Your task to perform on an android device: turn on sleep mode Image 0: 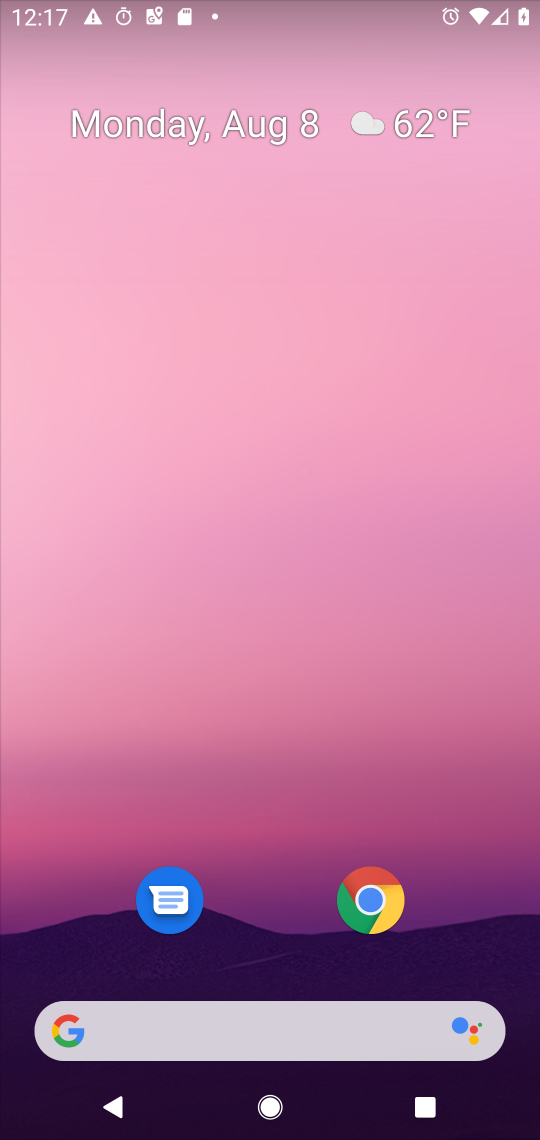
Step 0: press home button
Your task to perform on an android device: turn on sleep mode Image 1: 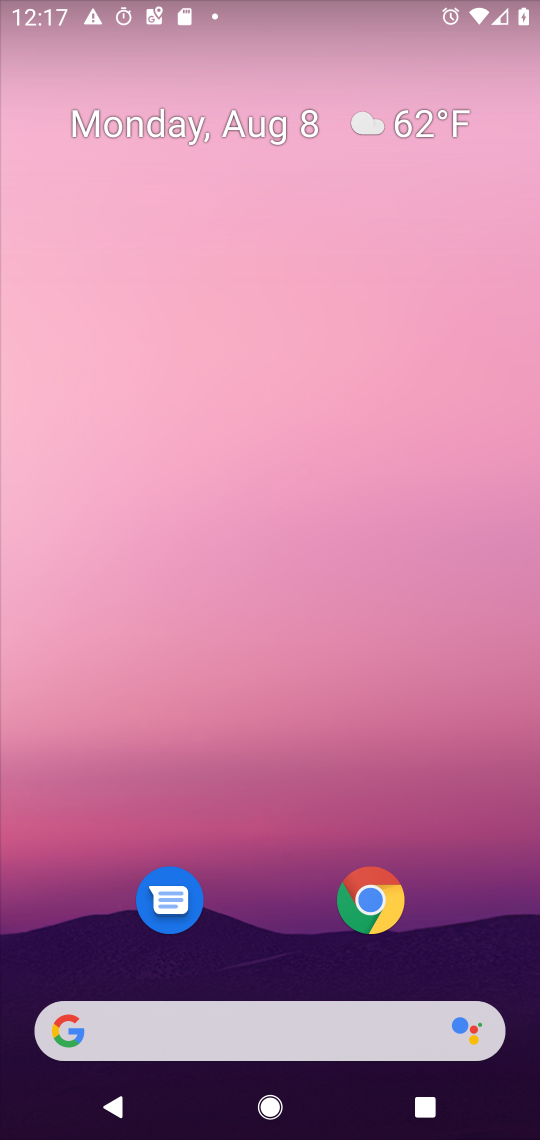
Step 1: drag from (289, 968) to (263, 41)
Your task to perform on an android device: turn on sleep mode Image 2: 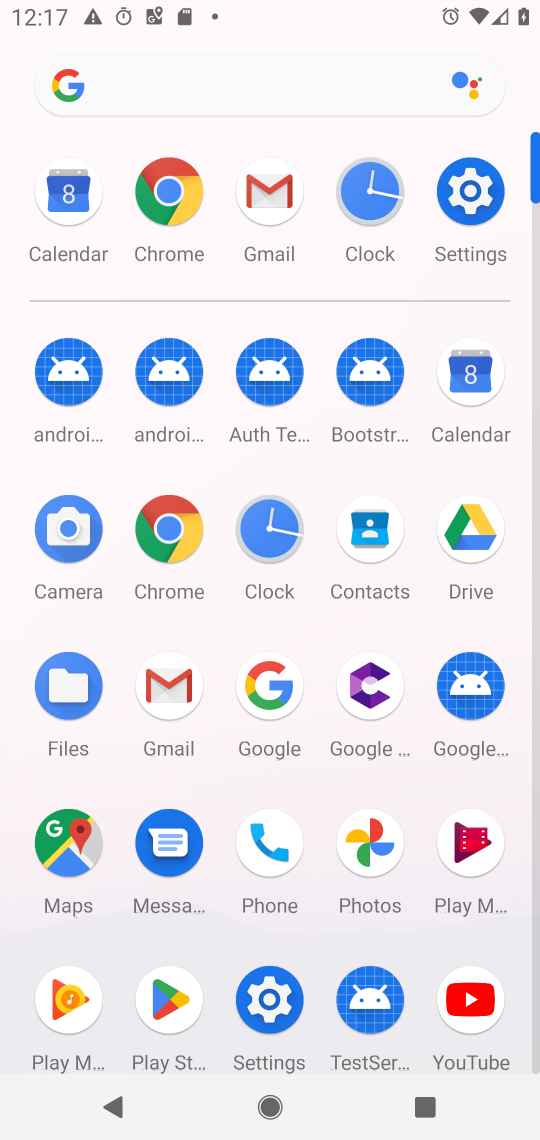
Step 2: click (455, 178)
Your task to perform on an android device: turn on sleep mode Image 3: 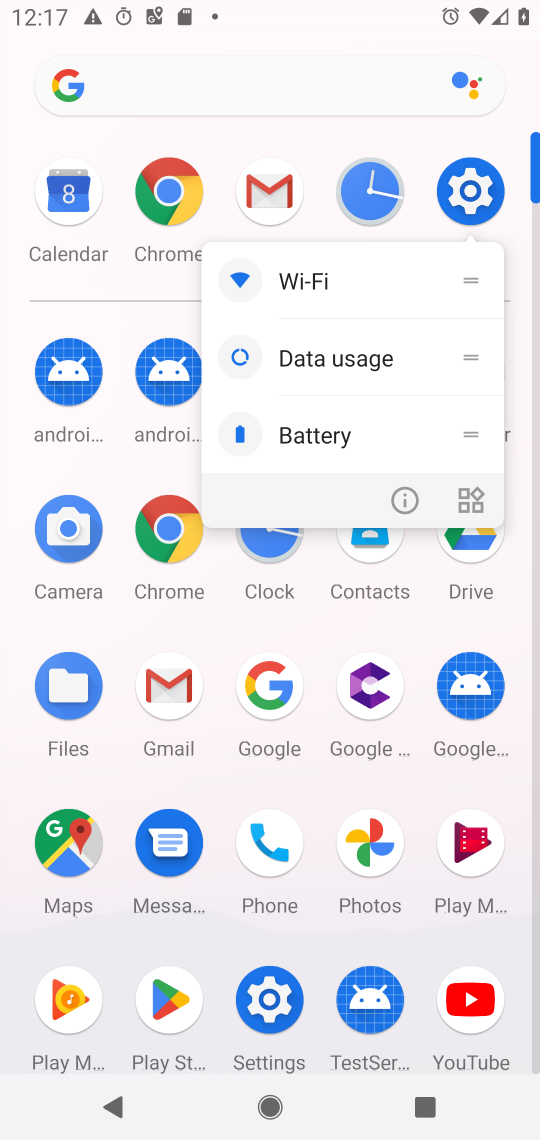
Step 3: click (478, 185)
Your task to perform on an android device: turn on sleep mode Image 4: 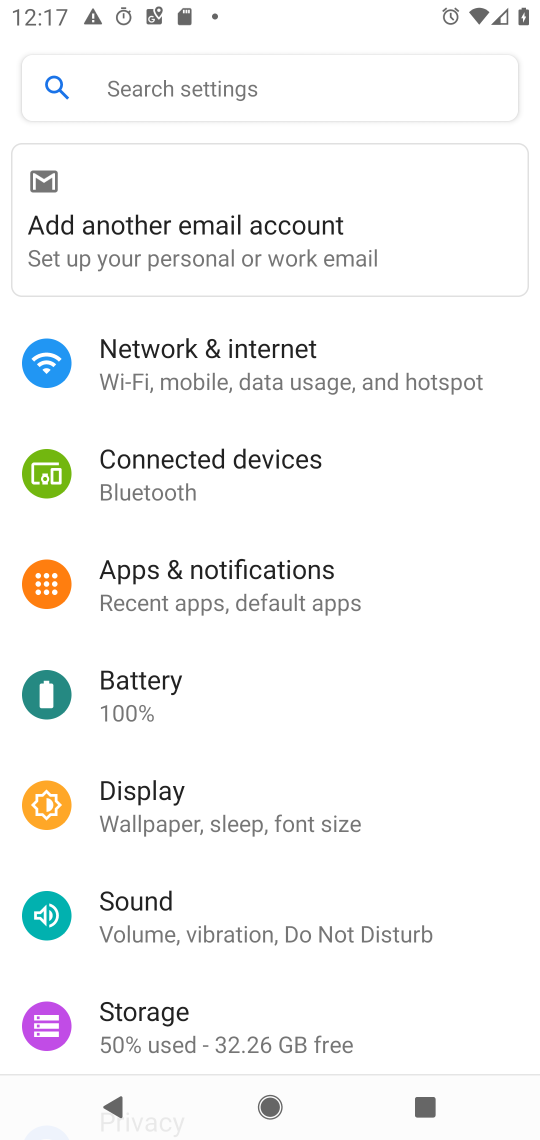
Step 4: click (194, 798)
Your task to perform on an android device: turn on sleep mode Image 5: 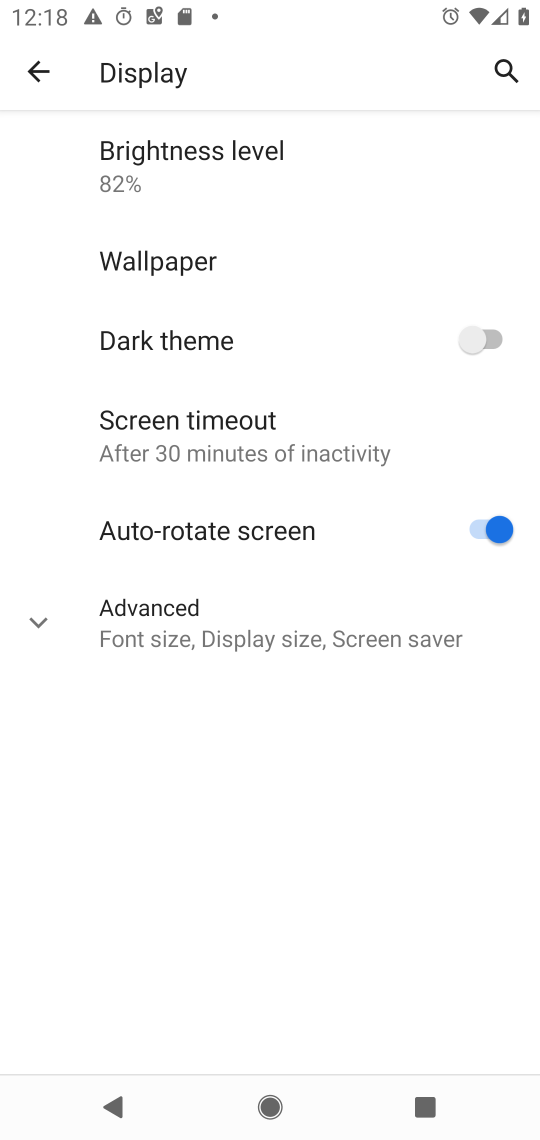
Step 5: click (35, 615)
Your task to perform on an android device: turn on sleep mode Image 6: 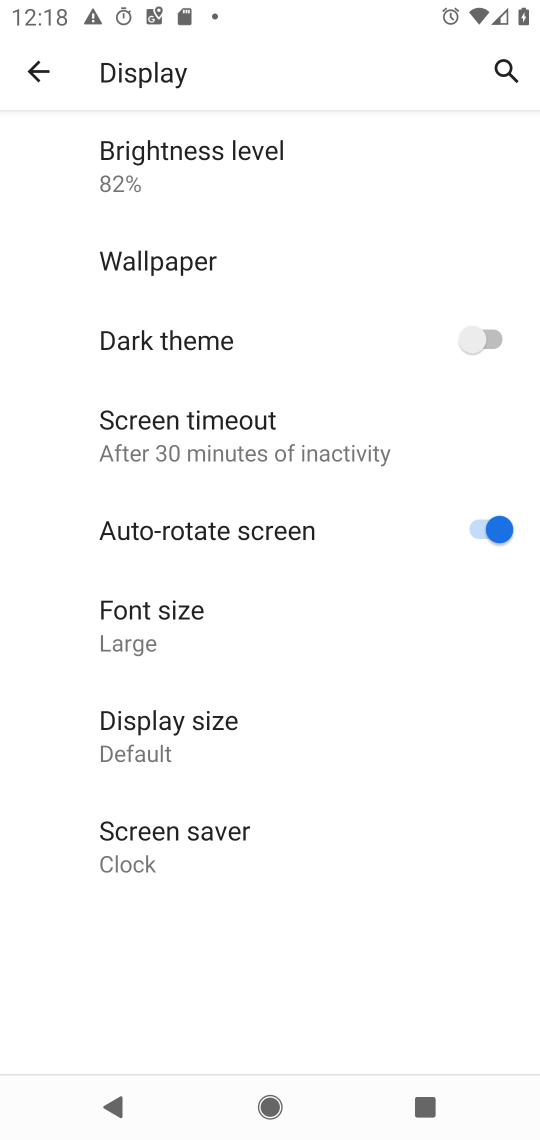
Step 6: task complete